Your task to perform on an android device: What is the recent news? Image 0: 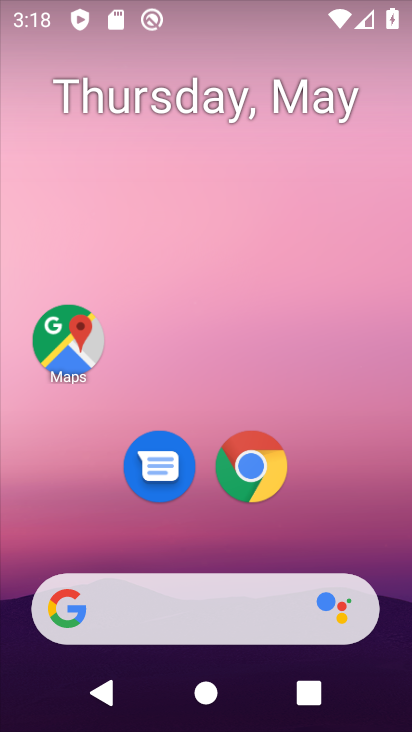
Step 0: drag from (0, 443) to (386, 367)
Your task to perform on an android device: What is the recent news? Image 1: 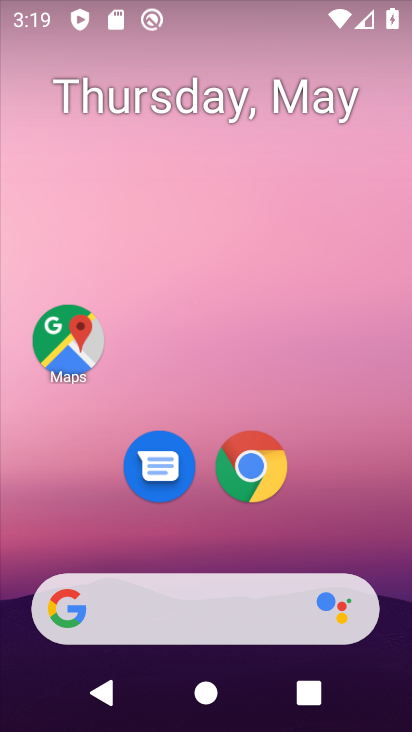
Step 1: task complete